Your task to perform on an android device: Search for usb-c to usb-b on newegg, select the first entry, add it to the cart, then select checkout. Image 0: 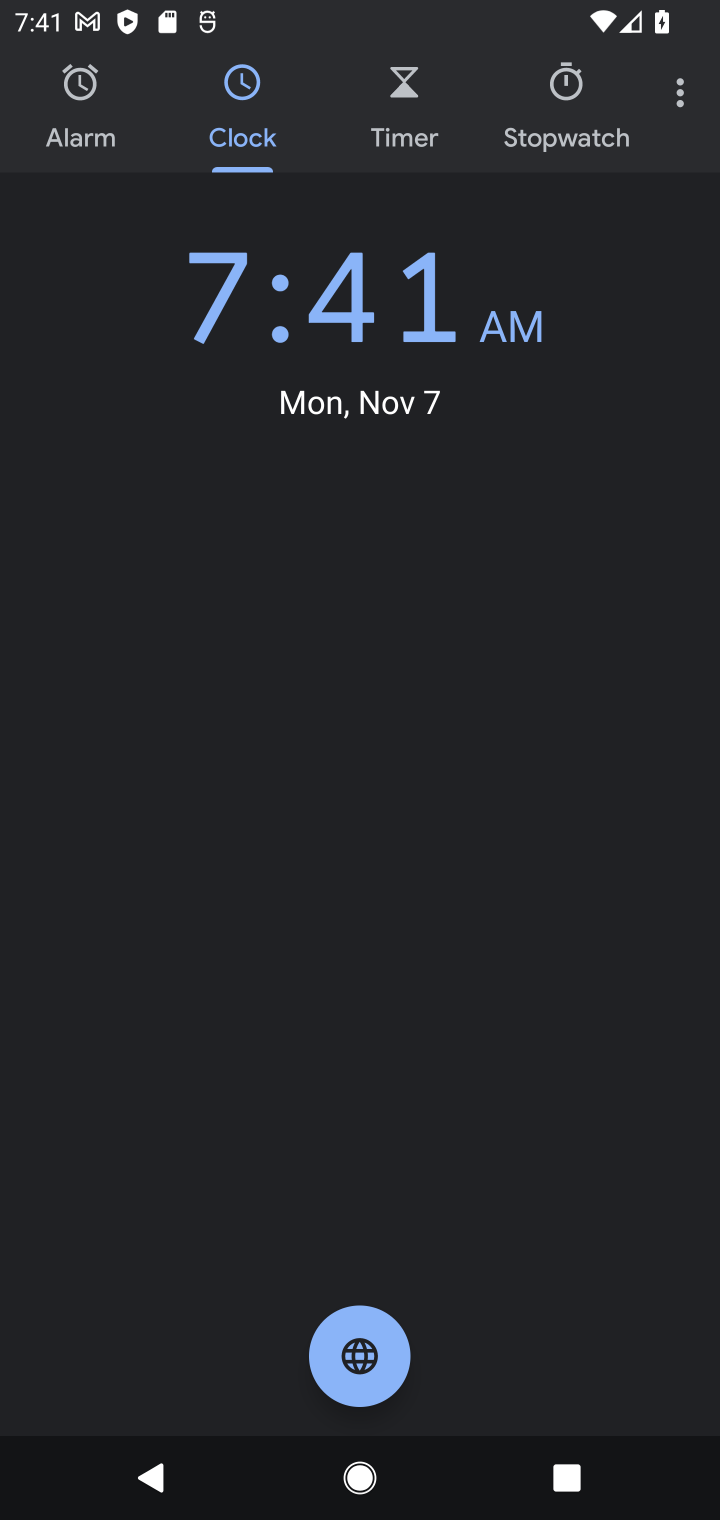
Step 0: press home button
Your task to perform on an android device: Search for usb-c to usb-b on newegg, select the first entry, add it to the cart, then select checkout. Image 1: 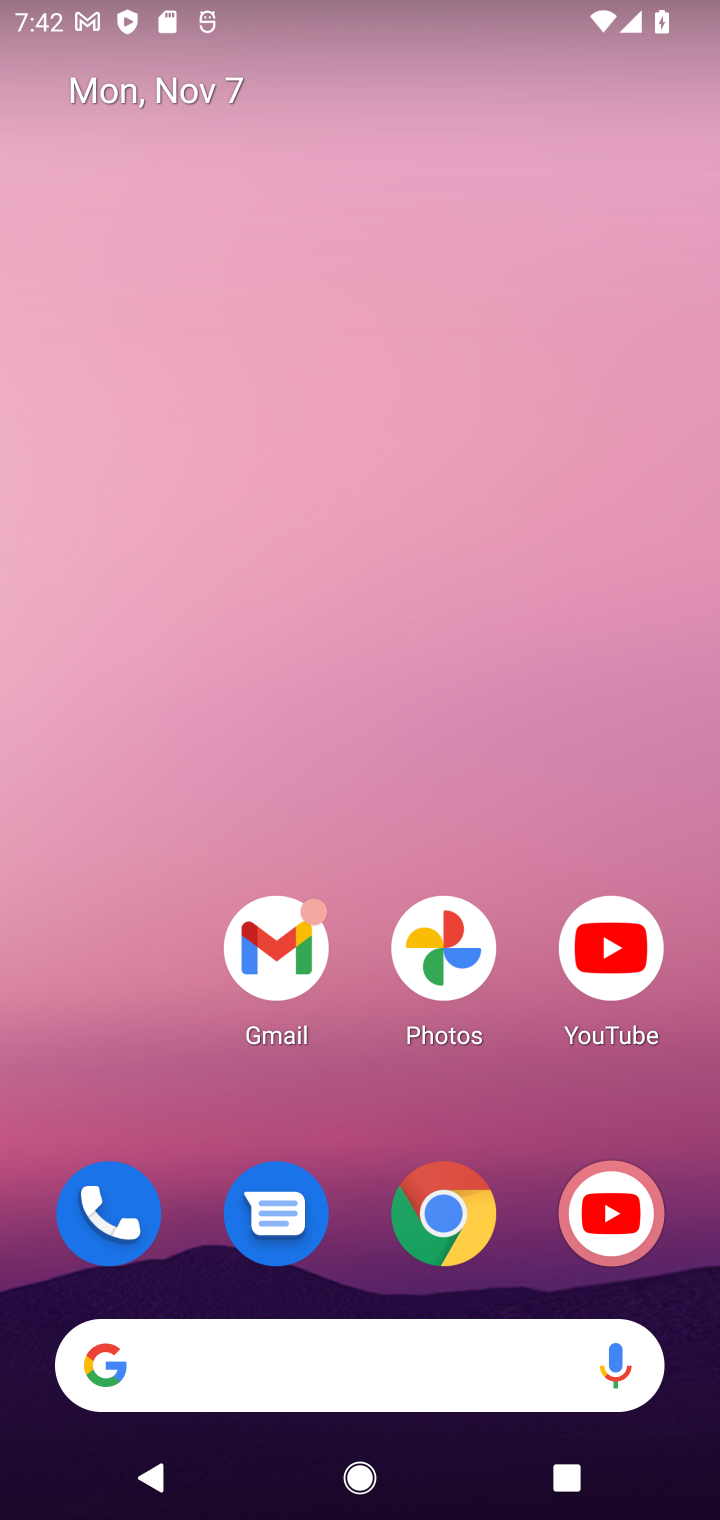
Step 1: click (439, 1226)
Your task to perform on an android device: Search for usb-c to usb-b on newegg, select the first entry, add it to the cart, then select checkout. Image 2: 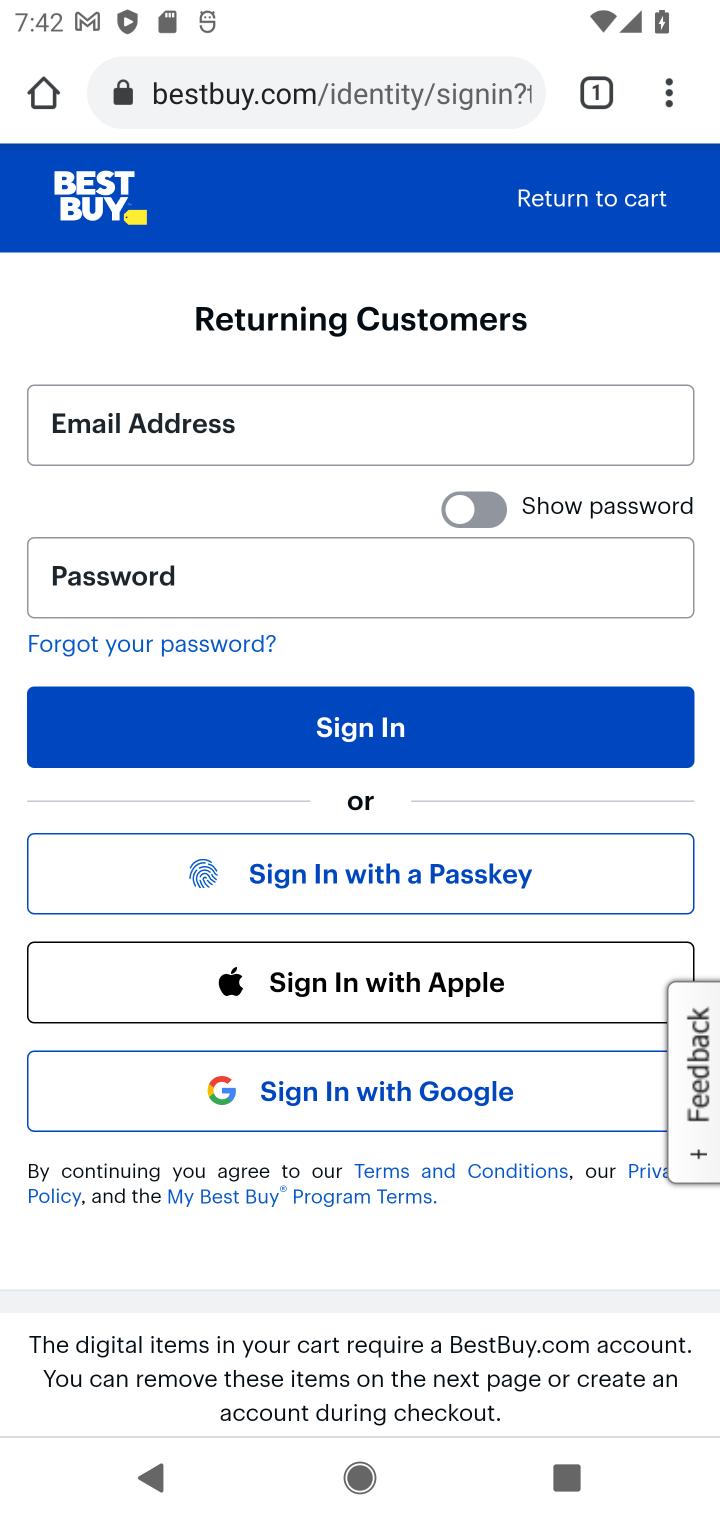
Step 2: click (293, 100)
Your task to perform on an android device: Search for usb-c to usb-b on newegg, select the first entry, add it to the cart, then select checkout. Image 3: 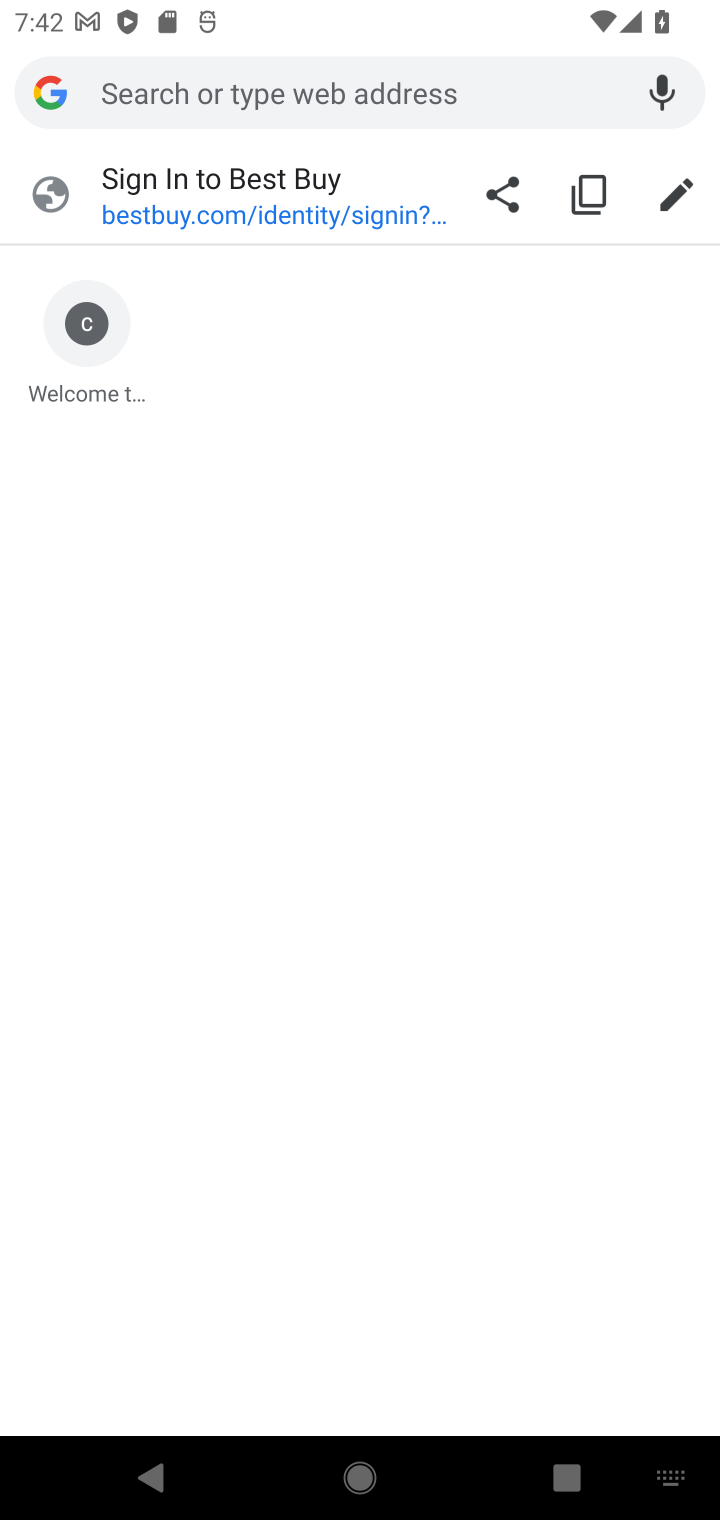
Step 3: type "newegg.com"
Your task to perform on an android device: Search for usb-c to usb-b on newegg, select the first entry, add it to the cart, then select checkout. Image 4: 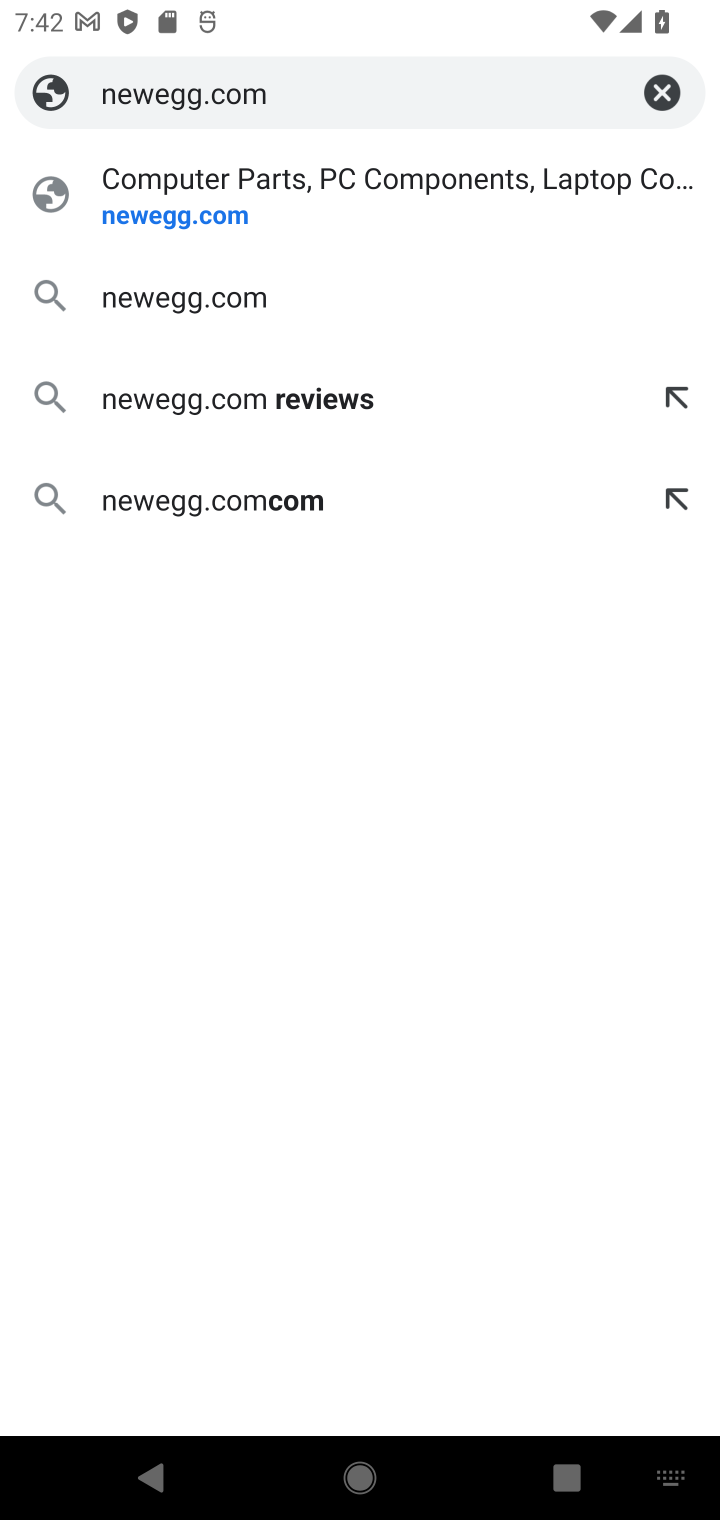
Step 4: click (176, 220)
Your task to perform on an android device: Search for usb-c to usb-b on newegg, select the first entry, add it to the cart, then select checkout. Image 5: 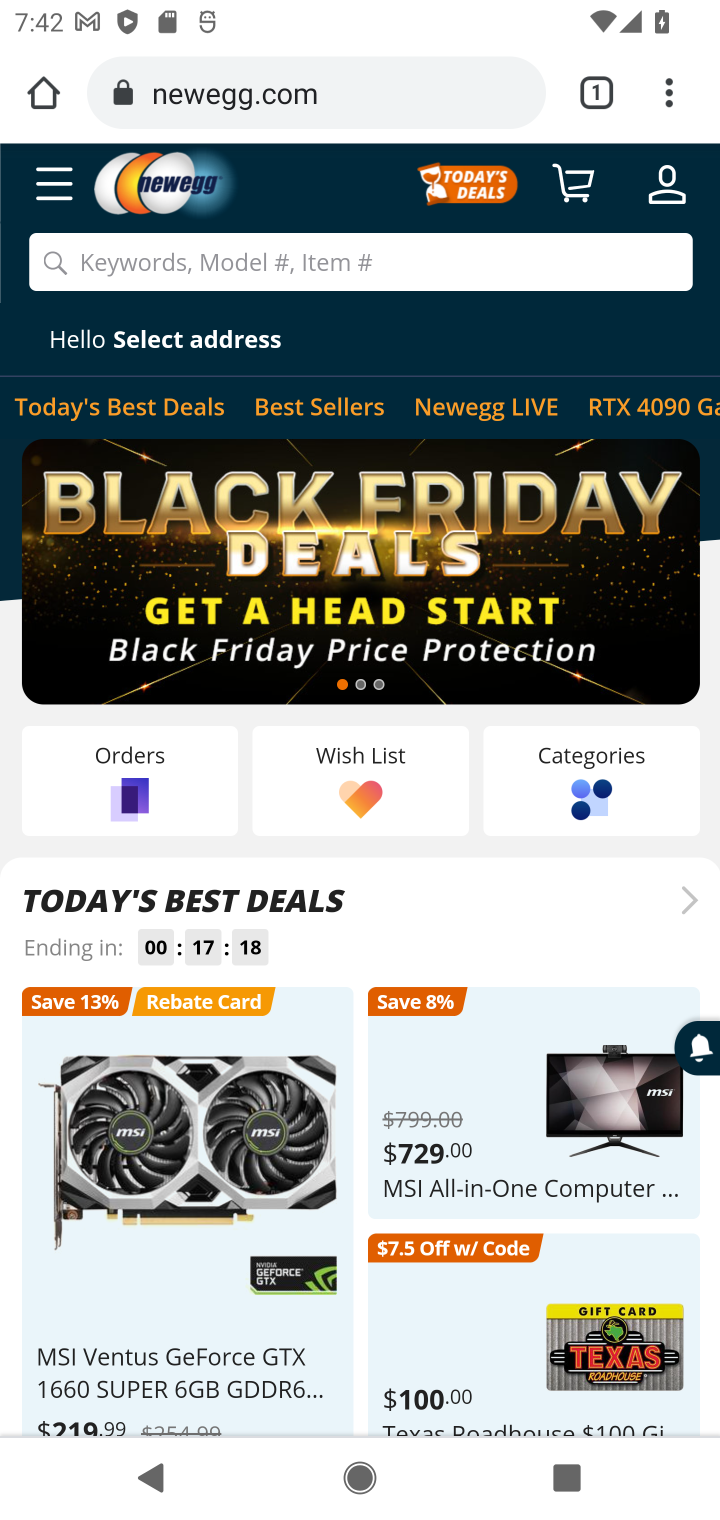
Step 5: click (199, 252)
Your task to perform on an android device: Search for usb-c to usb-b on newegg, select the first entry, add it to the cart, then select checkout. Image 6: 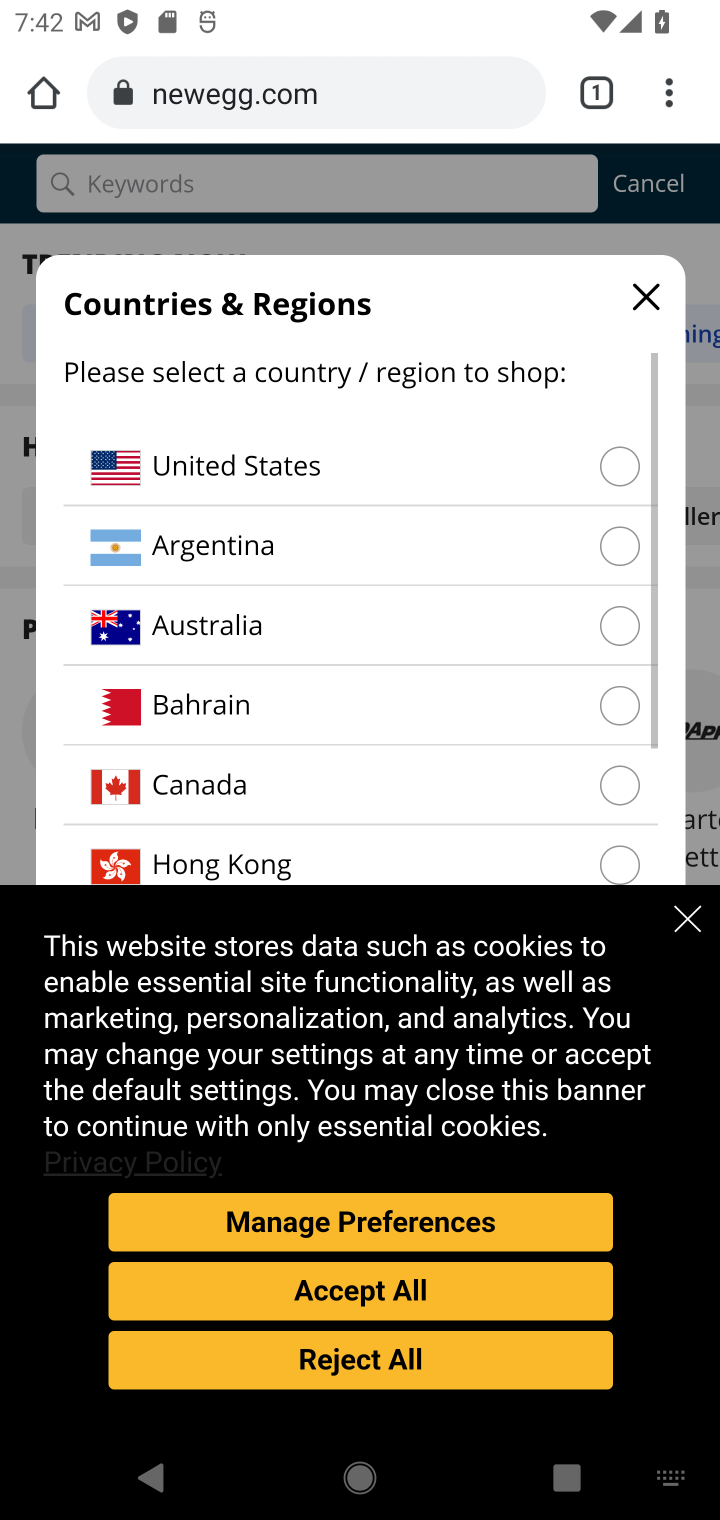
Step 6: click (255, 473)
Your task to perform on an android device: Search for usb-c to usb-b on newegg, select the first entry, add it to the cart, then select checkout. Image 7: 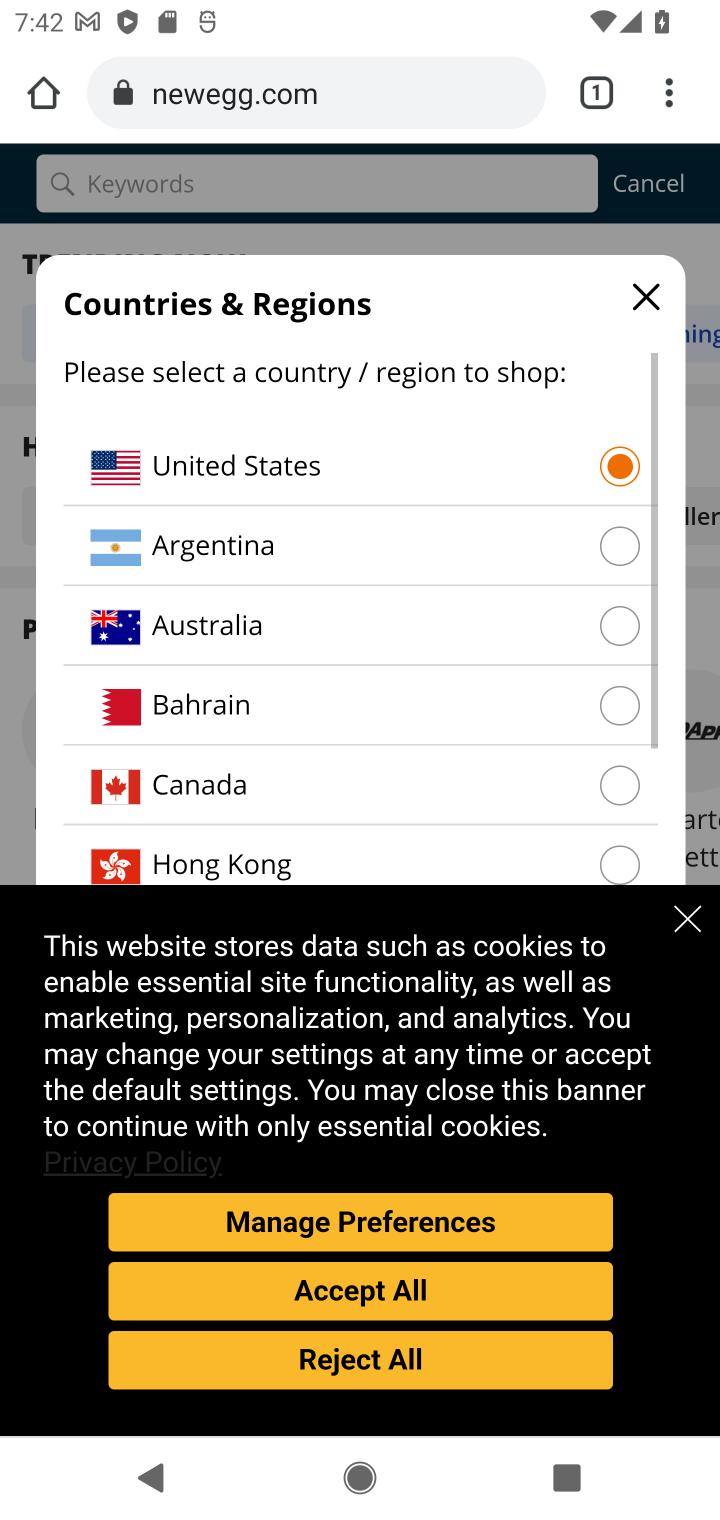
Step 7: click (642, 295)
Your task to perform on an android device: Search for usb-c to usb-b on newegg, select the first entry, add it to the cart, then select checkout. Image 8: 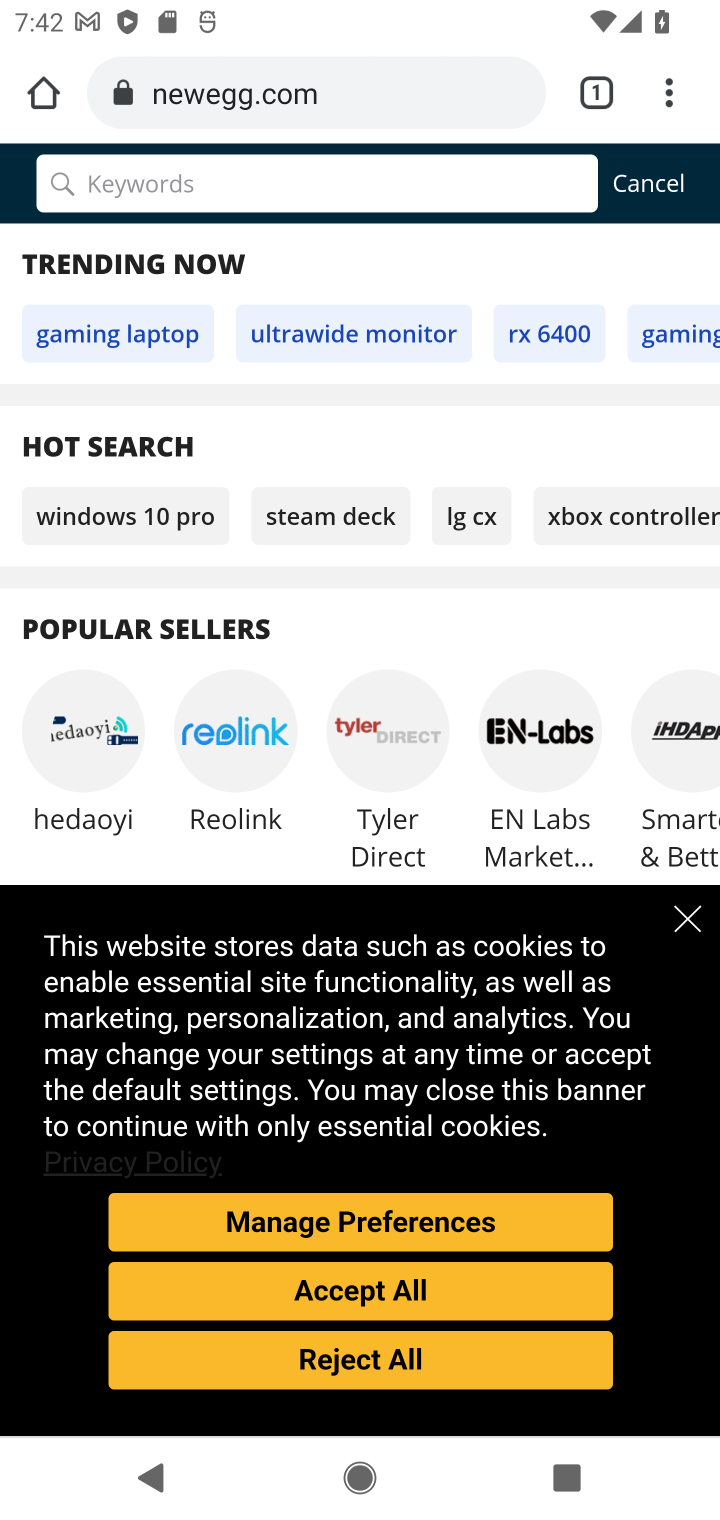
Step 8: click (244, 193)
Your task to perform on an android device: Search for usb-c to usb-b on newegg, select the first entry, add it to the cart, then select checkout. Image 9: 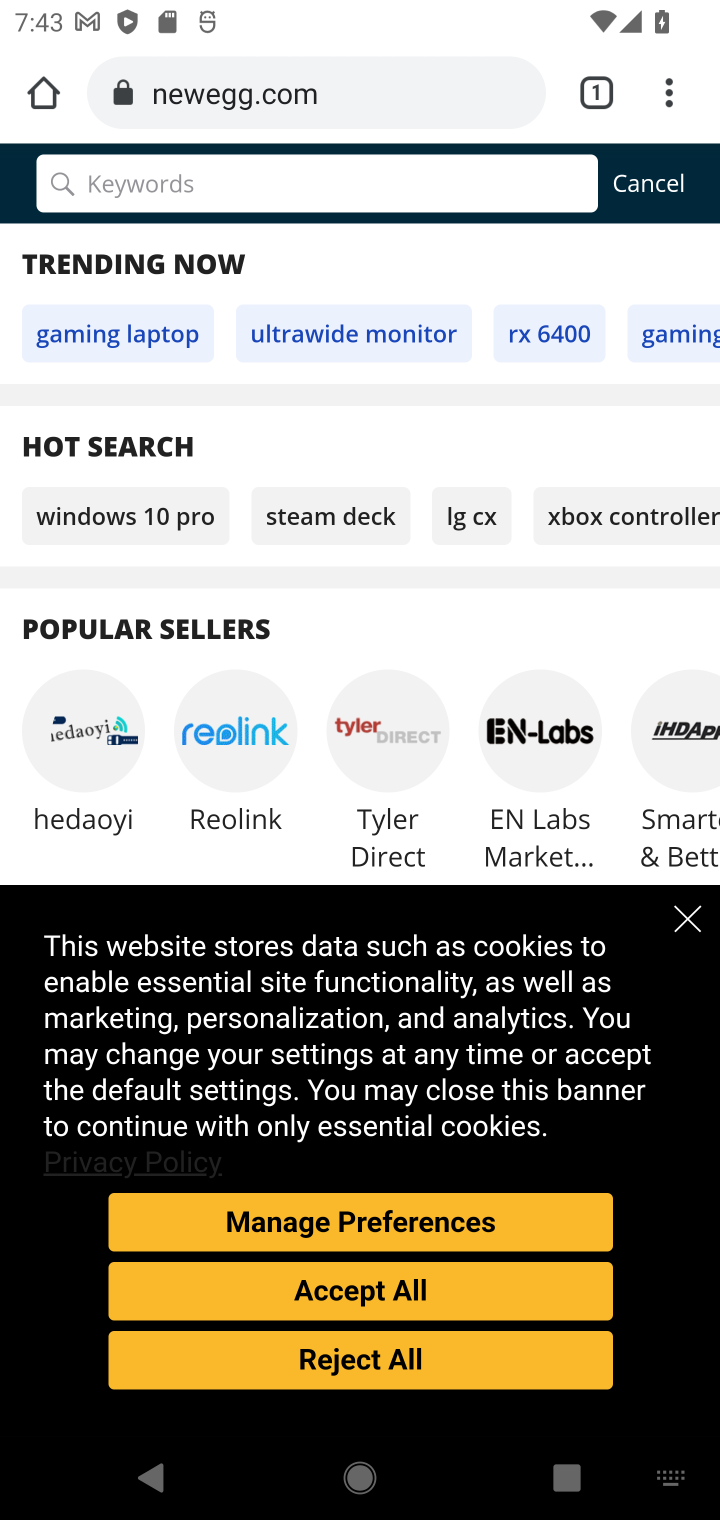
Step 9: type "usb-c to usb-b "
Your task to perform on an android device: Search for usb-c to usb-b on newegg, select the first entry, add it to the cart, then select checkout. Image 10: 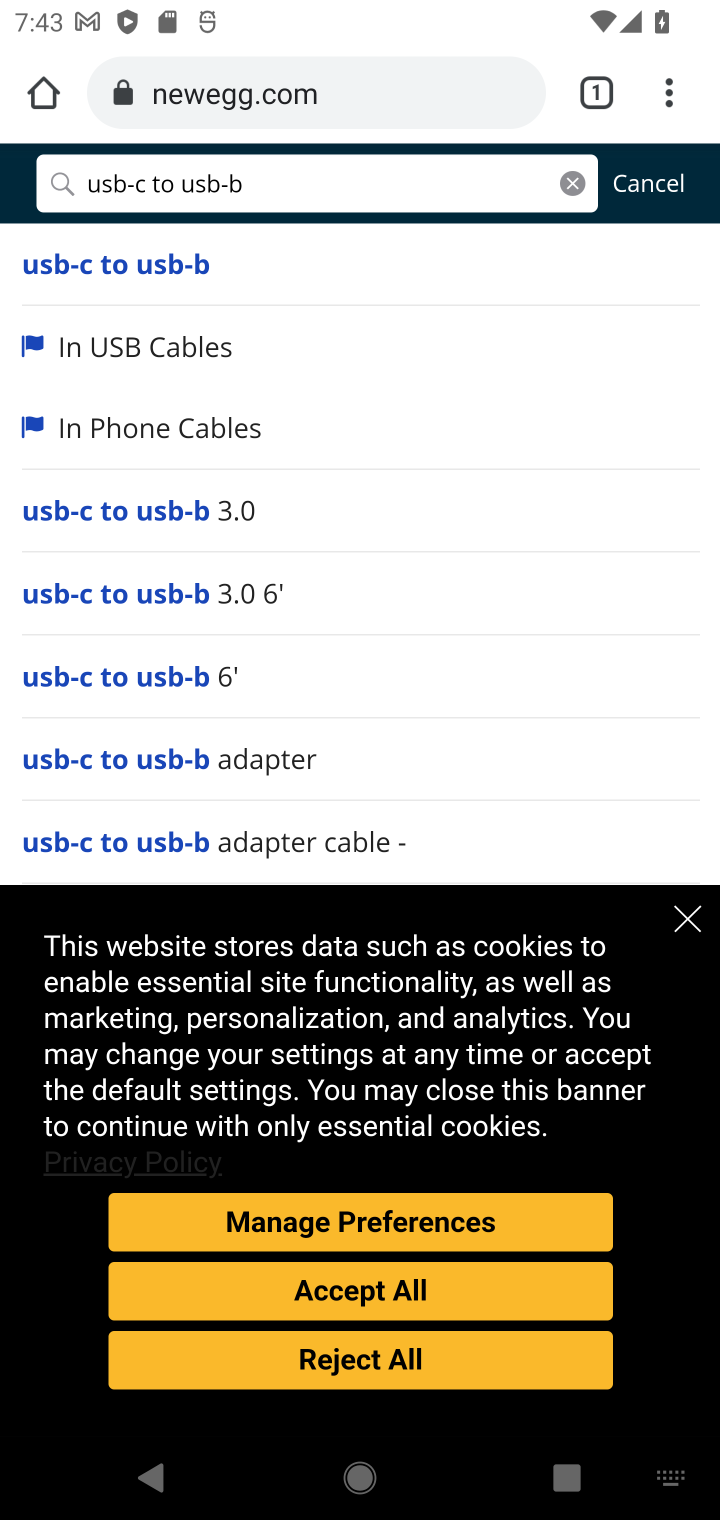
Step 10: click (115, 266)
Your task to perform on an android device: Search for usb-c to usb-b on newegg, select the first entry, add it to the cart, then select checkout. Image 11: 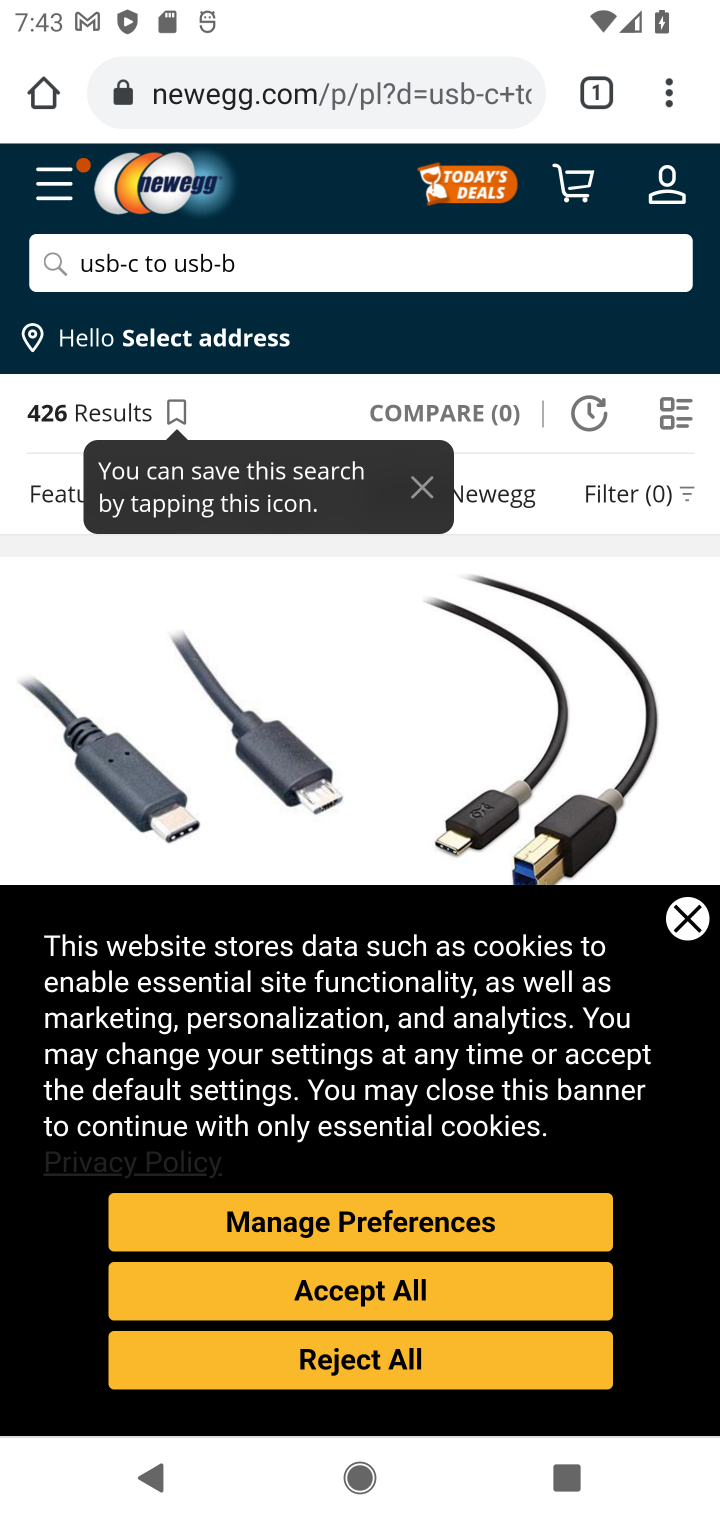
Step 11: click (685, 920)
Your task to perform on an android device: Search for usb-c to usb-b on newegg, select the first entry, add it to the cart, then select checkout. Image 12: 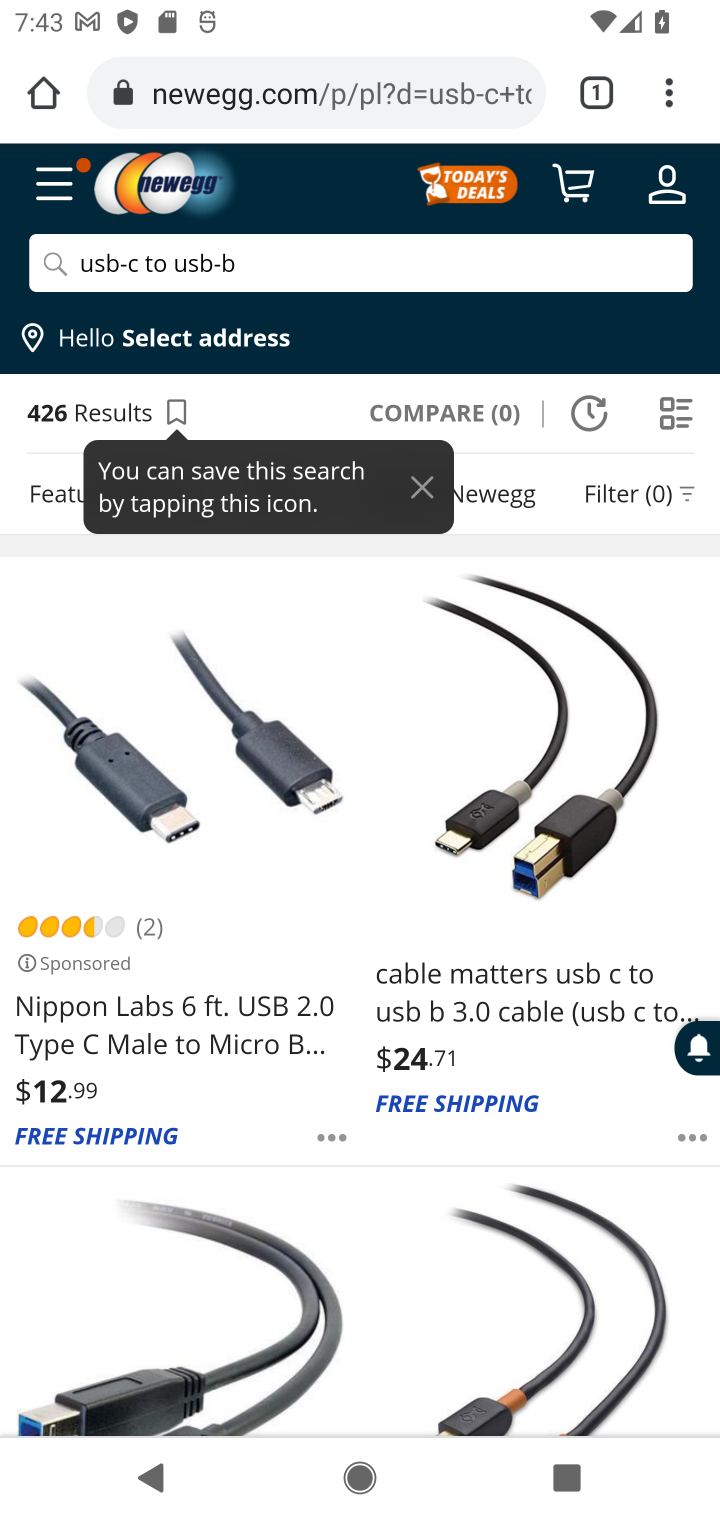
Step 12: click (135, 893)
Your task to perform on an android device: Search for usb-c to usb-b on newegg, select the first entry, add it to the cart, then select checkout. Image 13: 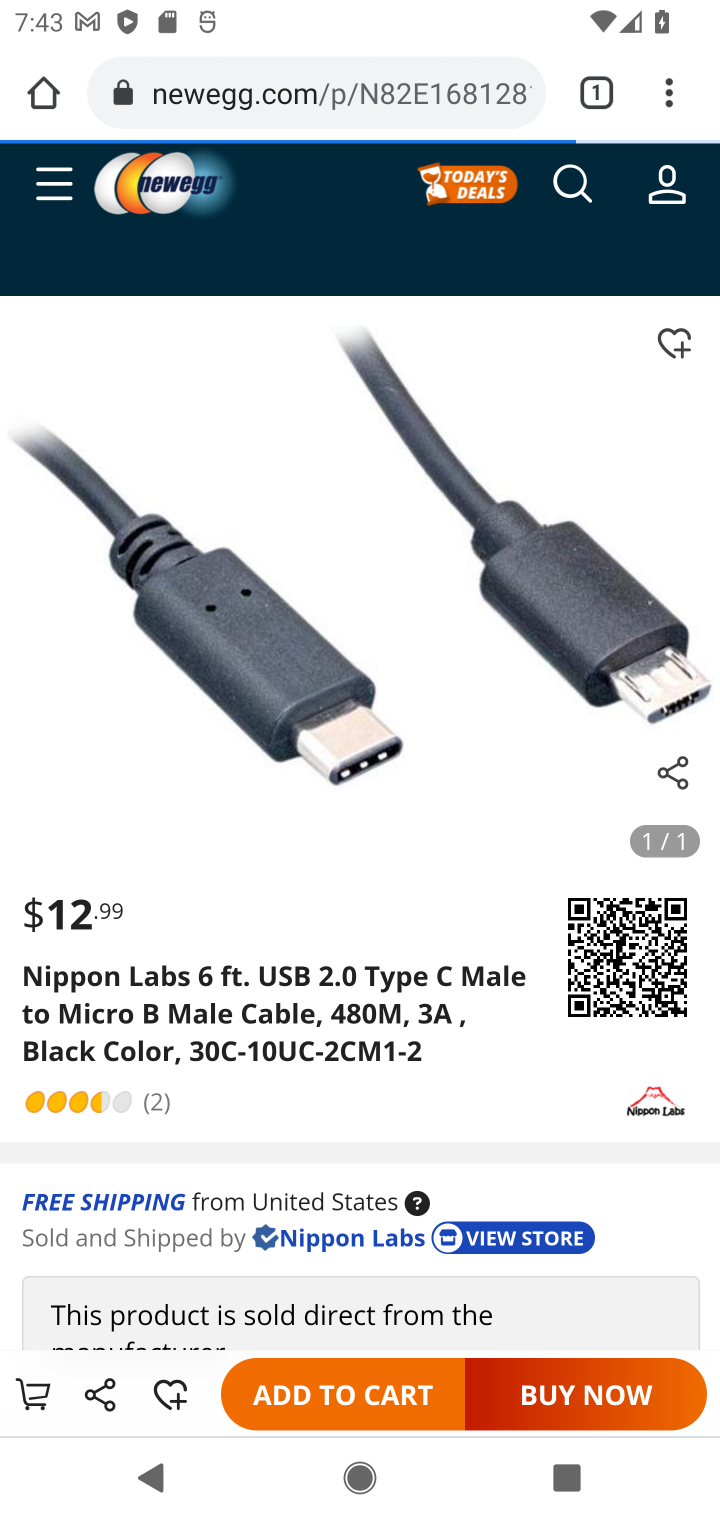
Step 13: click (142, 766)
Your task to perform on an android device: Search for usb-c to usb-b on newegg, select the first entry, add it to the cart, then select checkout. Image 14: 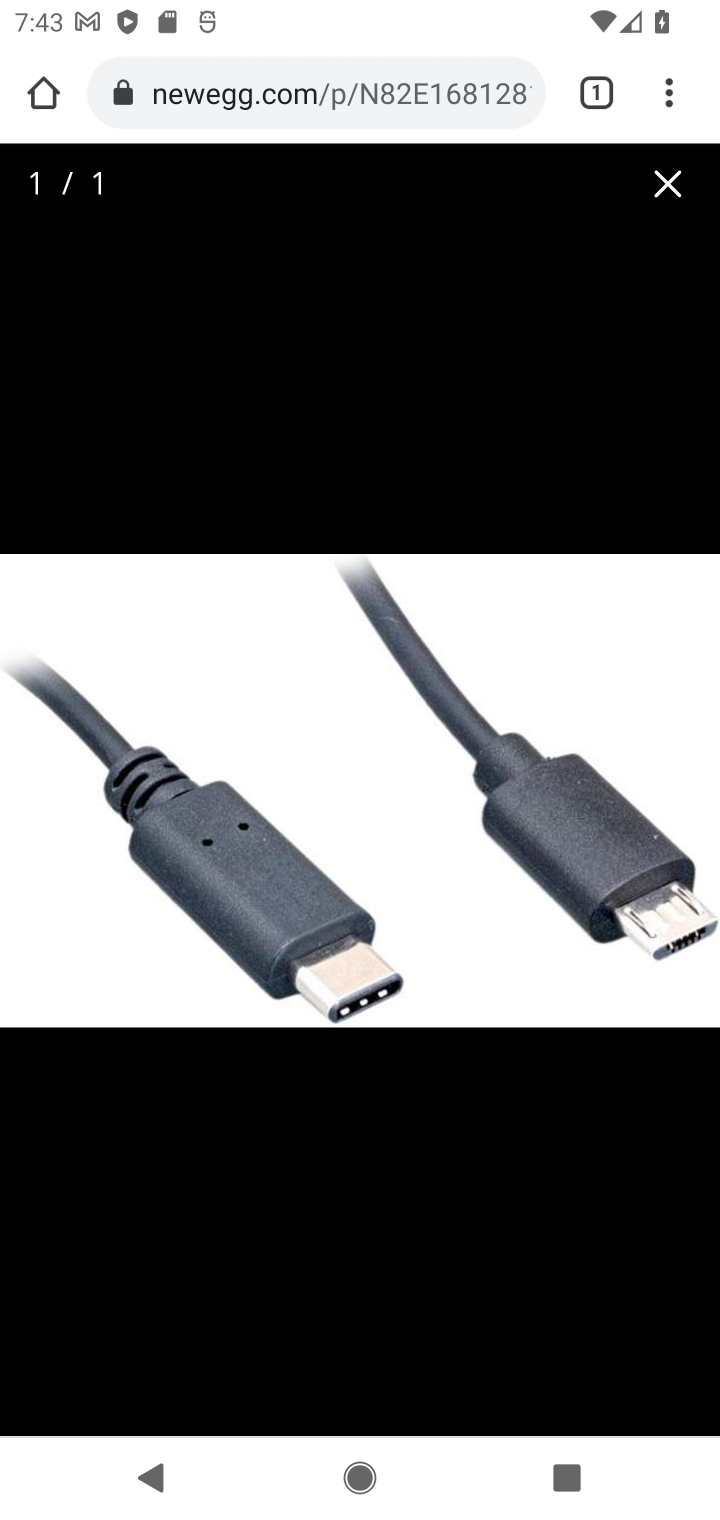
Step 14: click (665, 184)
Your task to perform on an android device: Search for usb-c to usb-b on newegg, select the first entry, add it to the cart, then select checkout. Image 15: 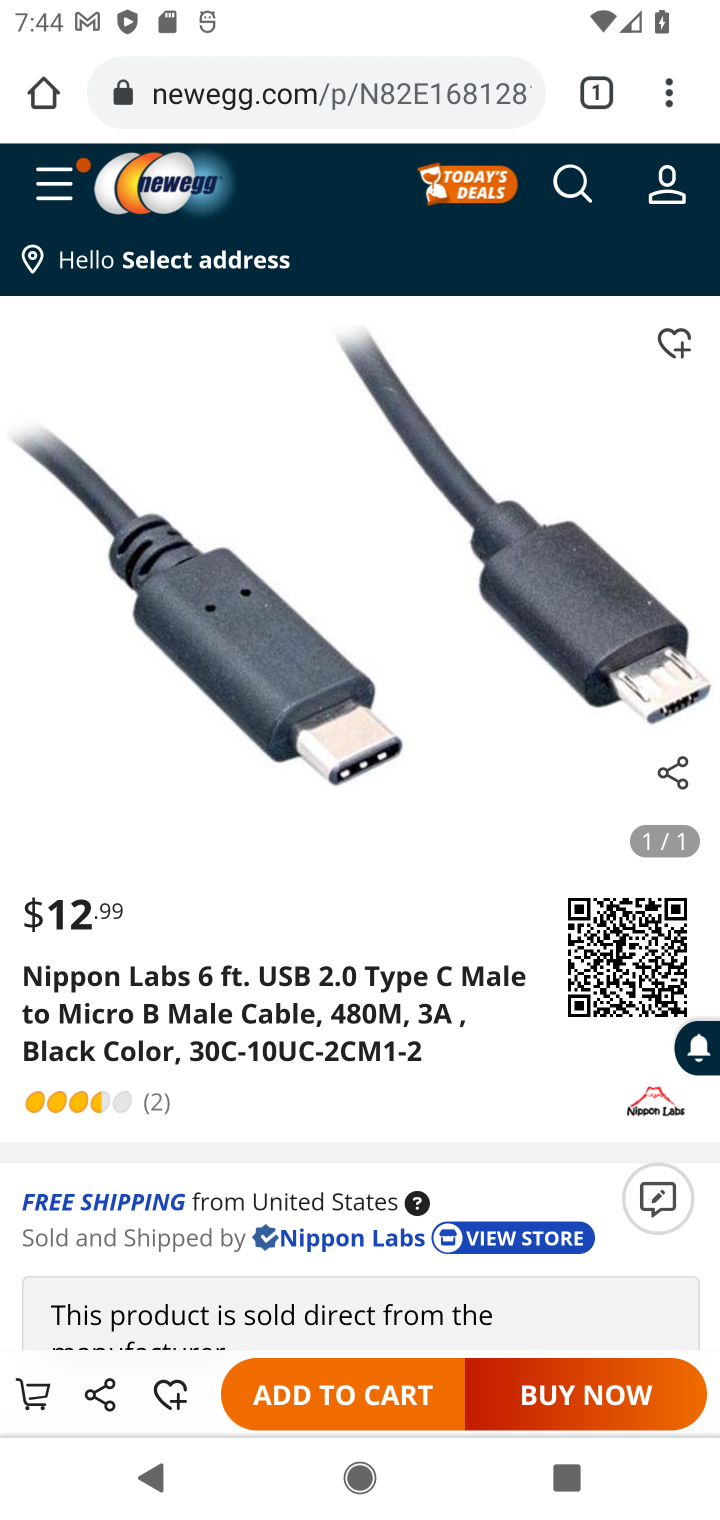
Step 15: task complete